Your task to perform on an android device: Open Google Image 0: 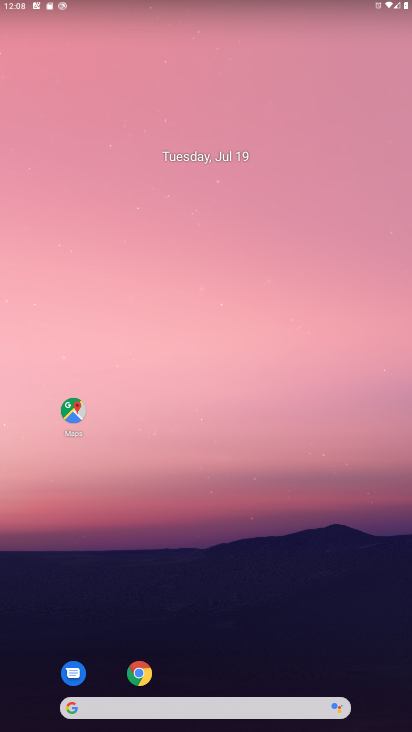
Step 0: drag from (217, 640) to (233, 186)
Your task to perform on an android device: Open Google Image 1: 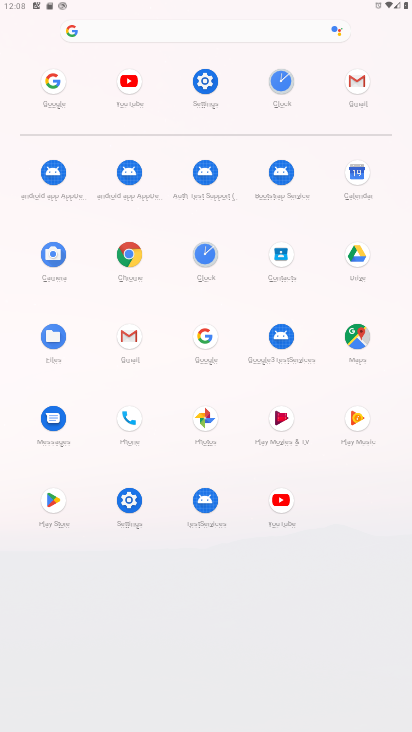
Step 1: click (40, 81)
Your task to perform on an android device: Open Google Image 2: 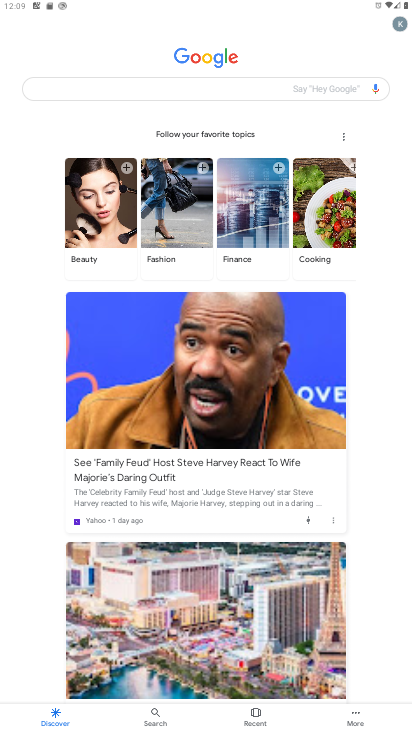
Step 2: task complete